Your task to perform on an android device: turn on bluetooth scan Image 0: 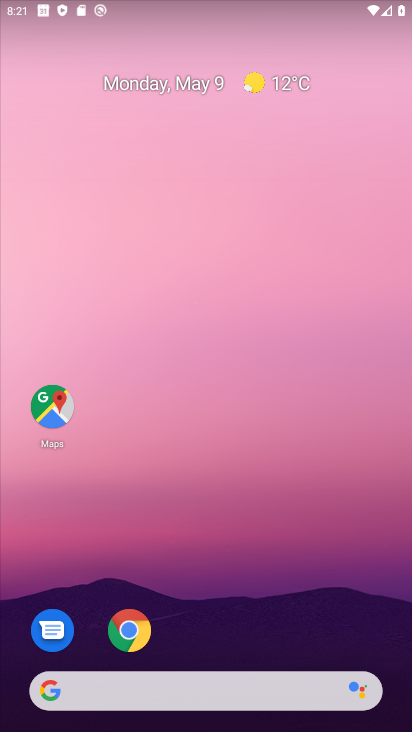
Step 0: drag from (173, 666) to (181, 360)
Your task to perform on an android device: turn on bluetooth scan Image 1: 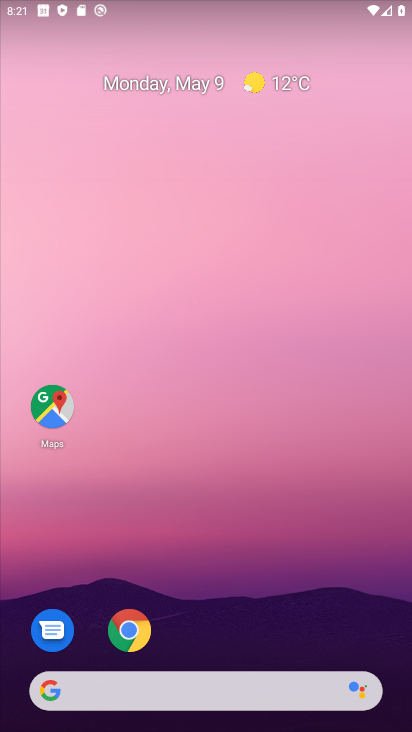
Step 1: drag from (167, 684) to (244, 338)
Your task to perform on an android device: turn on bluetooth scan Image 2: 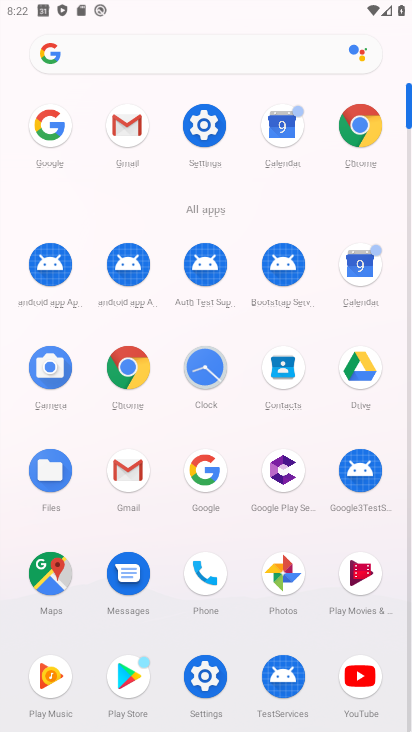
Step 2: click (210, 129)
Your task to perform on an android device: turn on bluetooth scan Image 3: 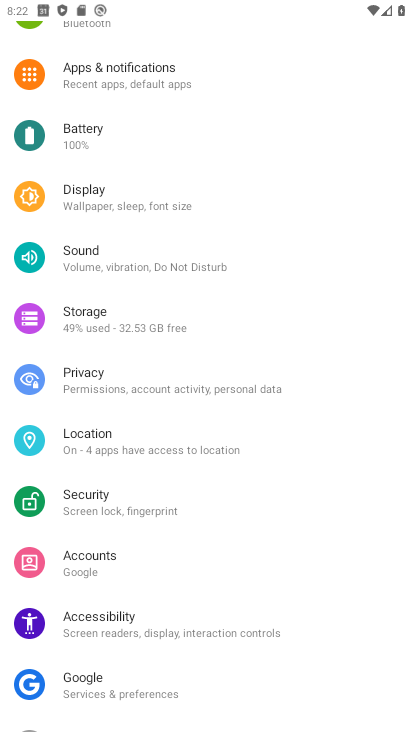
Step 3: drag from (196, 454) to (213, 158)
Your task to perform on an android device: turn on bluetooth scan Image 4: 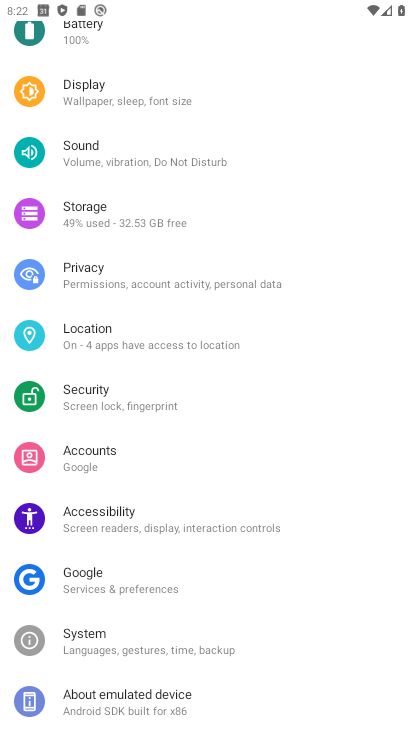
Step 4: drag from (182, 487) to (244, 251)
Your task to perform on an android device: turn on bluetooth scan Image 5: 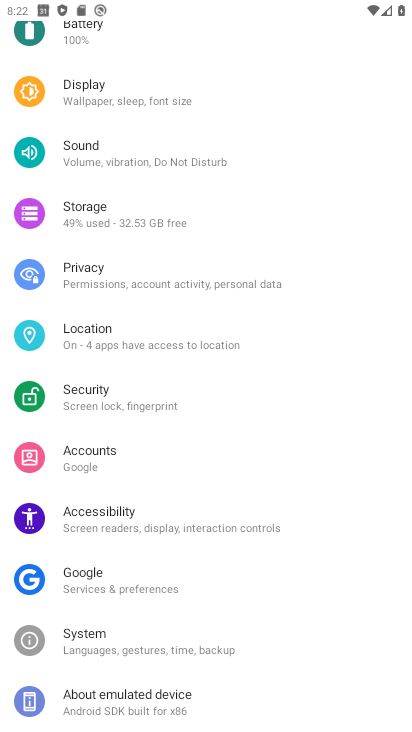
Step 5: click (96, 341)
Your task to perform on an android device: turn on bluetooth scan Image 6: 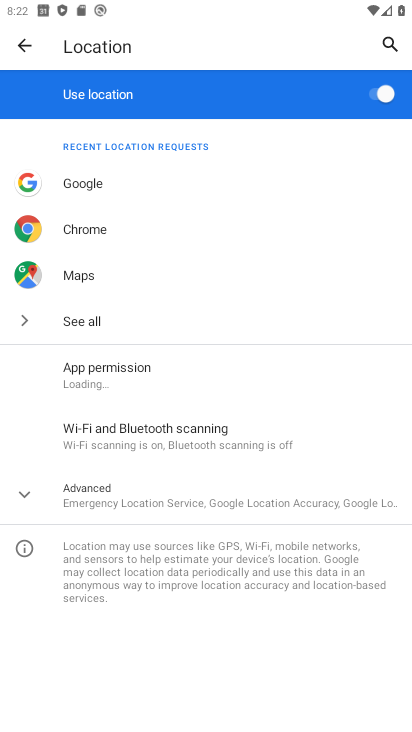
Step 6: click (154, 439)
Your task to perform on an android device: turn on bluetooth scan Image 7: 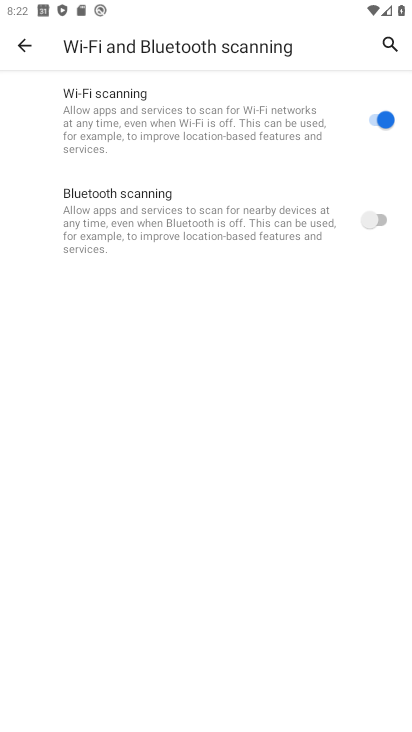
Step 7: click (380, 215)
Your task to perform on an android device: turn on bluetooth scan Image 8: 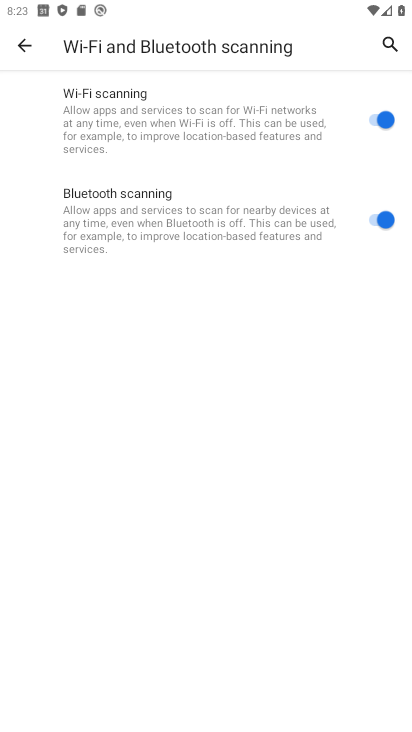
Step 8: task complete